Your task to perform on an android device: visit the assistant section in the google photos Image 0: 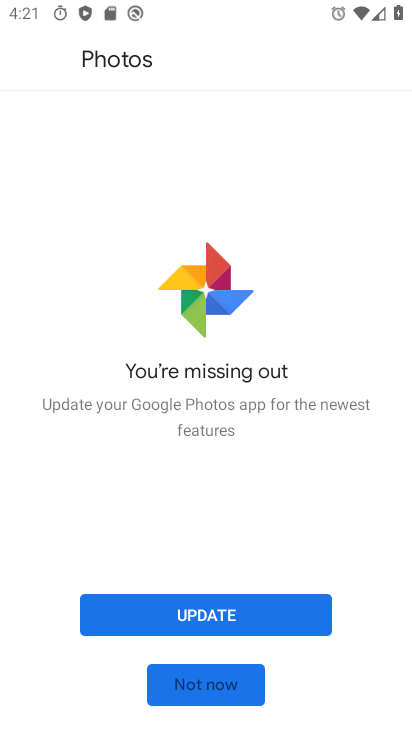
Step 0: click (223, 672)
Your task to perform on an android device: visit the assistant section in the google photos Image 1: 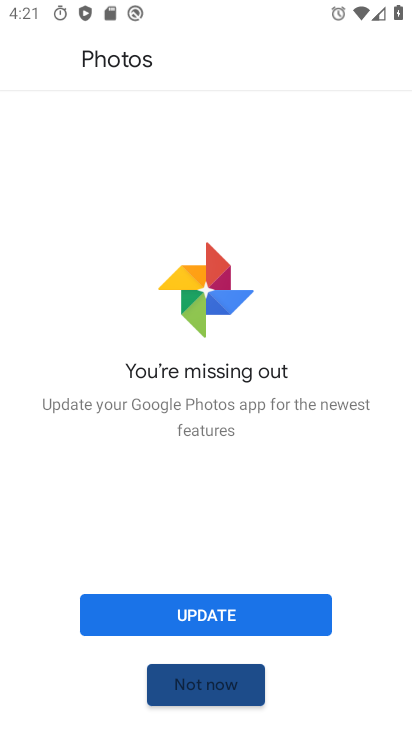
Step 1: click (222, 672)
Your task to perform on an android device: visit the assistant section in the google photos Image 2: 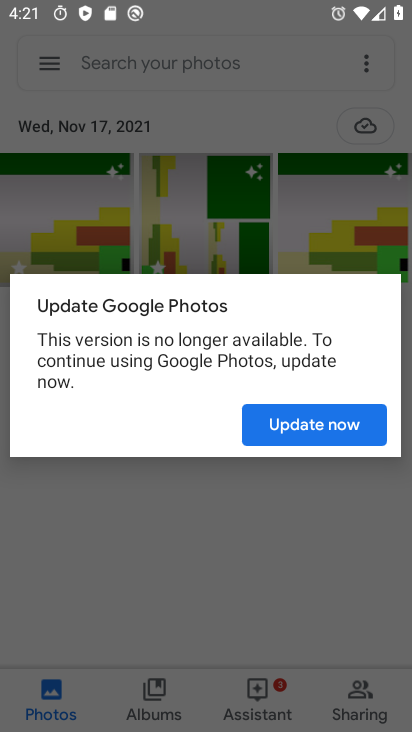
Step 2: click (221, 673)
Your task to perform on an android device: visit the assistant section in the google photos Image 3: 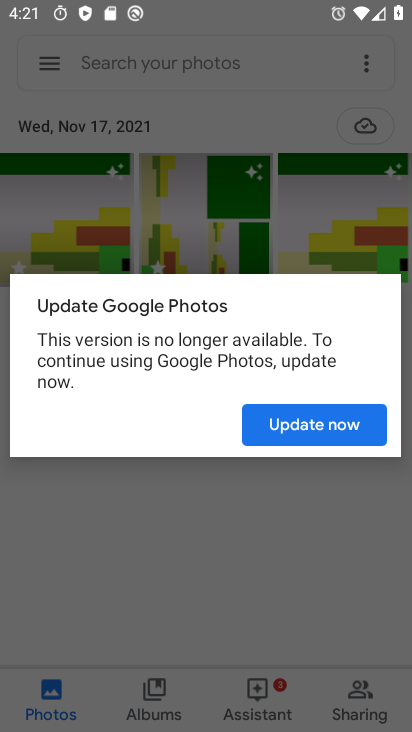
Step 3: click (321, 430)
Your task to perform on an android device: visit the assistant section in the google photos Image 4: 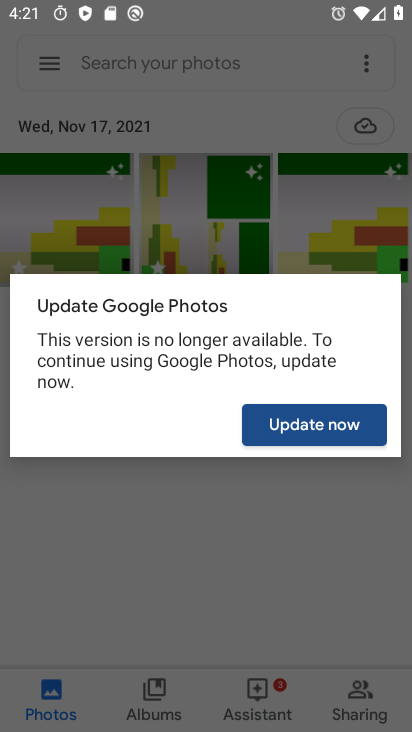
Step 4: click (321, 430)
Your task to perform on an android device: visit the assistant section in the google photos Image 5: 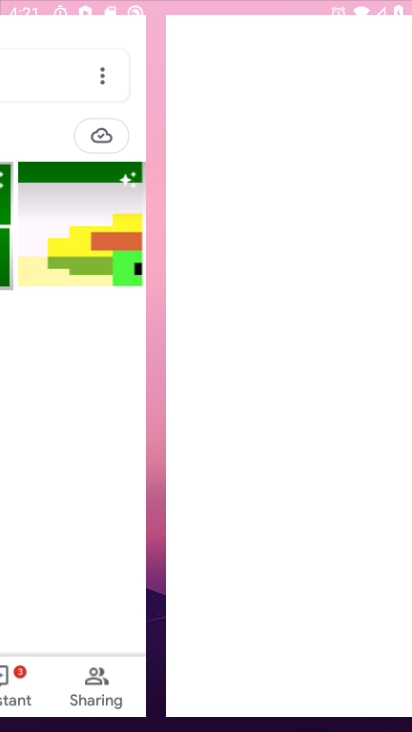
Step 5: click (321, 430)
Your task to perform on an android device: visit the assistant section in the google photos Image 6: 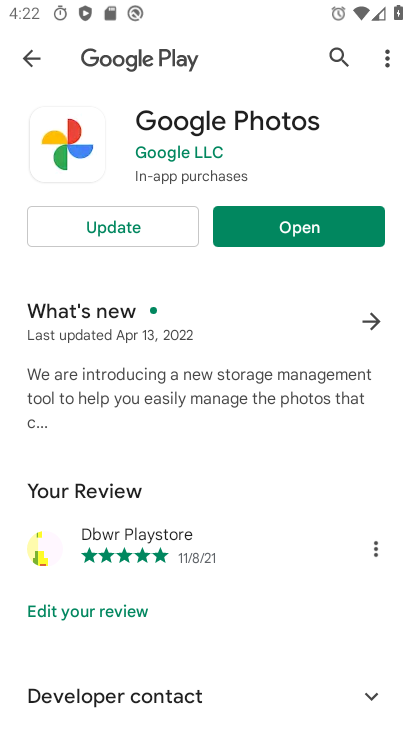
Step 6: click (303, 231)
Your task to perform on an android device: visit the assistant section in the google photos Image 7: 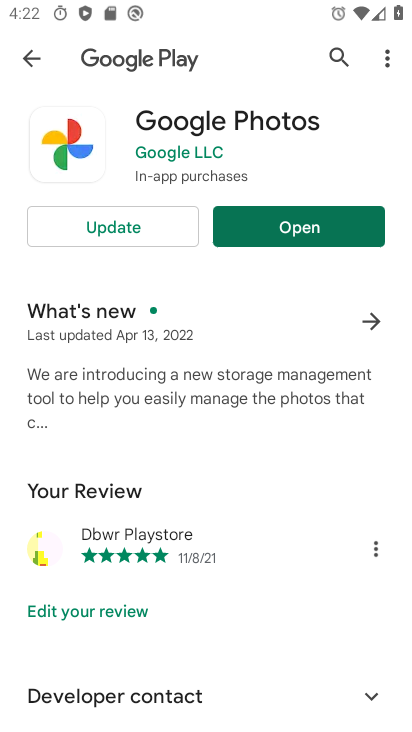
Step 7: click (309, 228)
Your task to perform on an android device: visit the assistant section in the google photos Image 8: 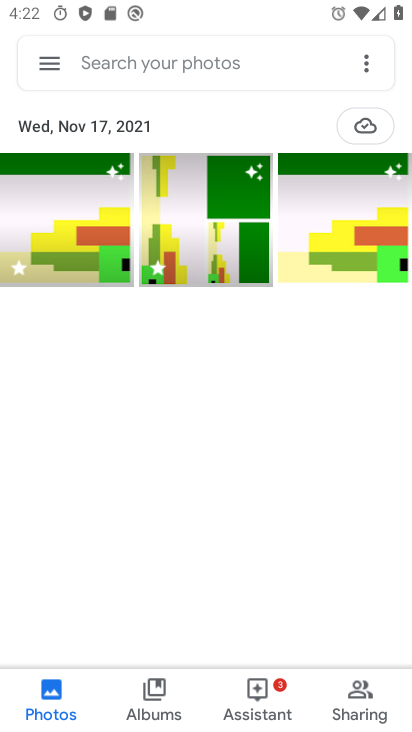
Step 8: click (259, 712)
Your task to perform on an android device: visit the assistant section in the google photos Image 9: 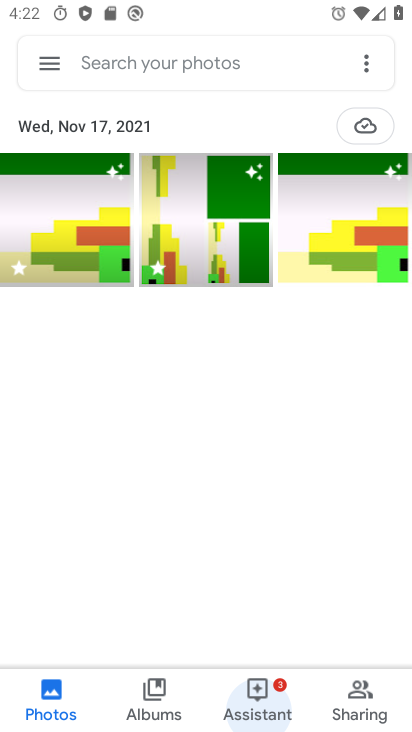
Step 9: click (259, 712)
Your task to perform on an android device: visit the assistant section in the google photos Image 10: 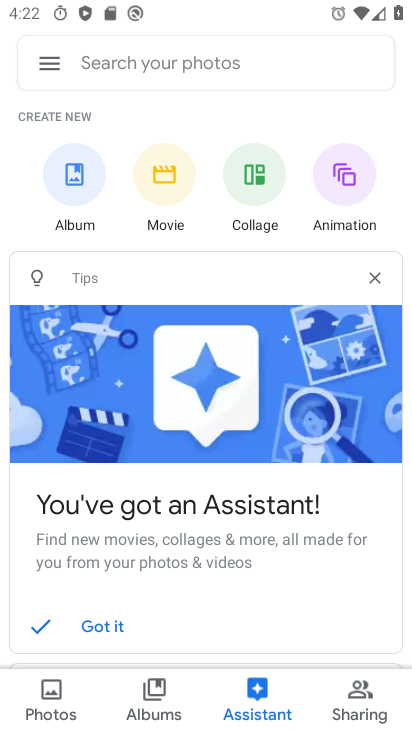
Step 10: click (255, 707)
Your task to perform on an android device: visit the assistant section in the google photos Image 11: 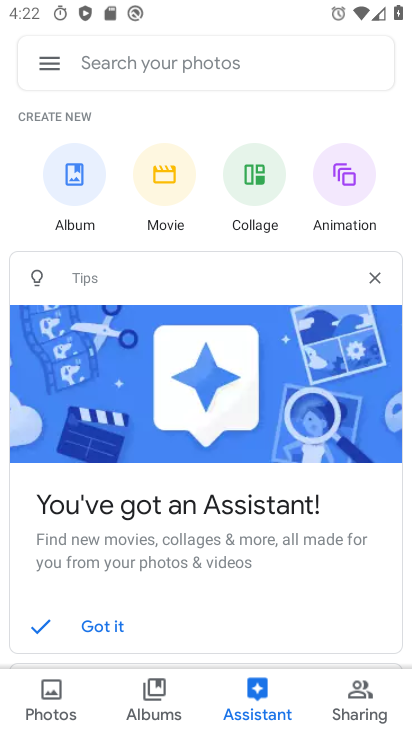
Step 11: task complete